Your task to perform on an android device: add a label to a message in the gmail app Image 0: 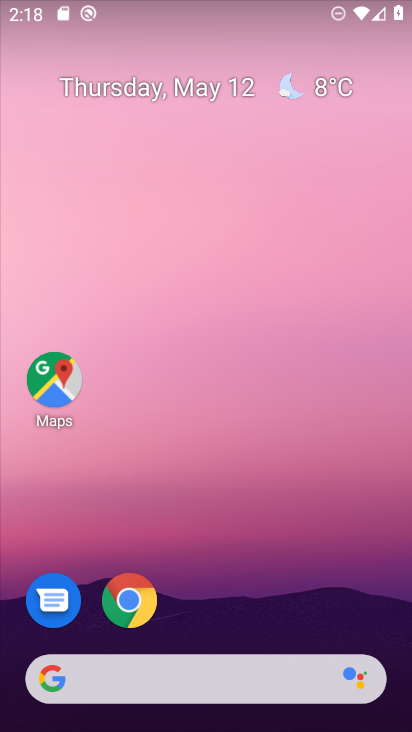
Step 0: drag from (220, 726) to (220, 245)
Your task to perform on an android device: add a label to a message in the gmail app Image 1: 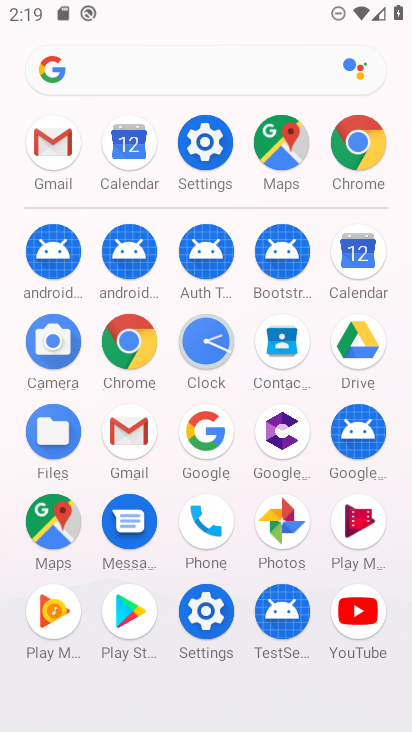
Step 1: click (132, 427)
Your task to perform on an android device: add a label to a message in the gmail app Image 2: 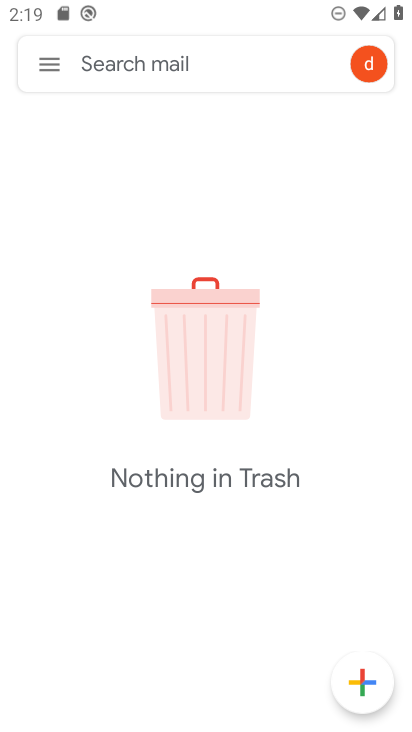
Step 2: task complete